Your task to perform on an android device: Play the last video I watched on Youtube Image 0: 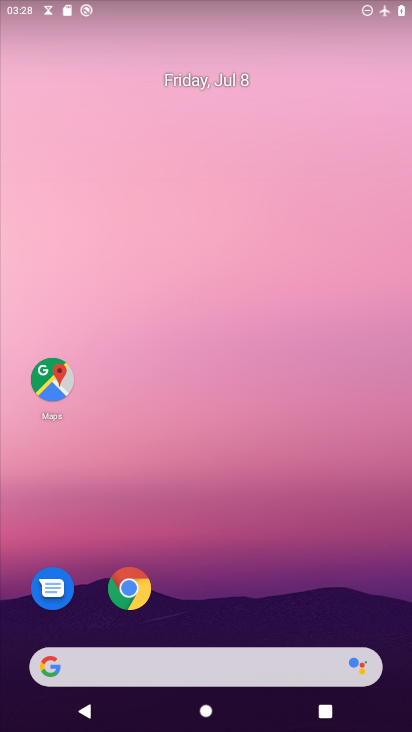
Step 0: drag from (207, 561) to (180, 34)
Your task to perform on an android device: Play the last video I watched on Youtube Image 1: 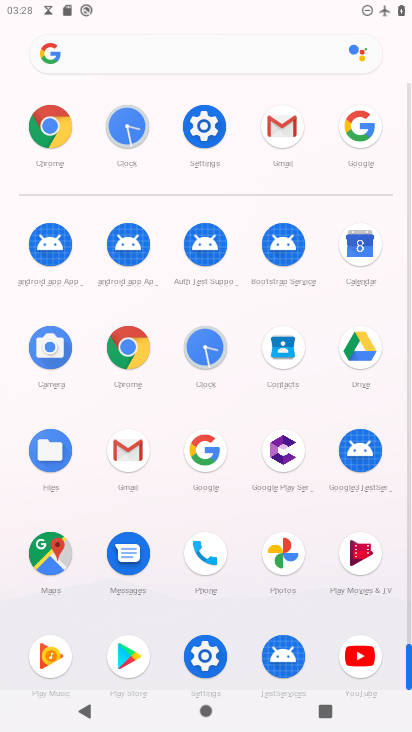
Step 1: click (364, 673)
Your task to perform on an android device: Play the last video I watched on Youtube Image 2: 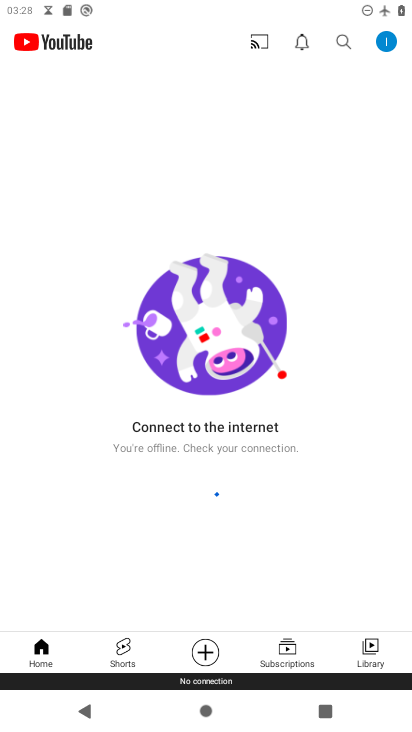
Step 2: click (373, 649)
Your task to perform on an android device: Play the last video I watched on Youtube Image 3: 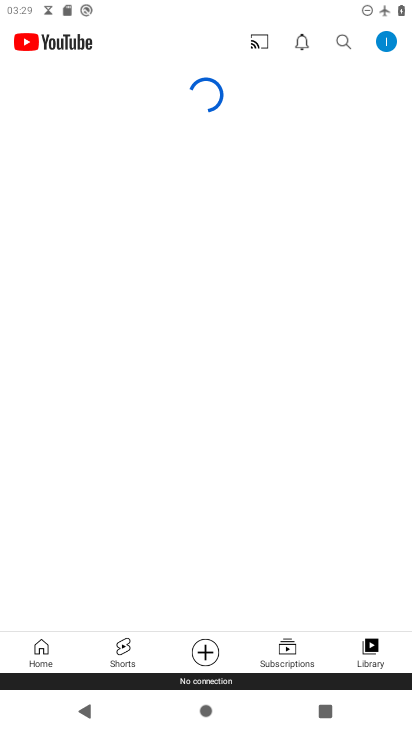
Step 3: click (365, 649)
Your task to perform on an android device: Play the last video I watched on Youtube Image 4: 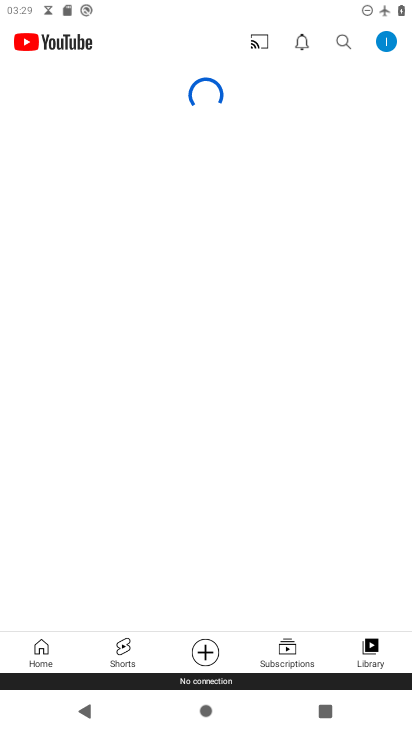
Step 4: task complete